Your task to perform on an android device: open wifi settings Image 0: 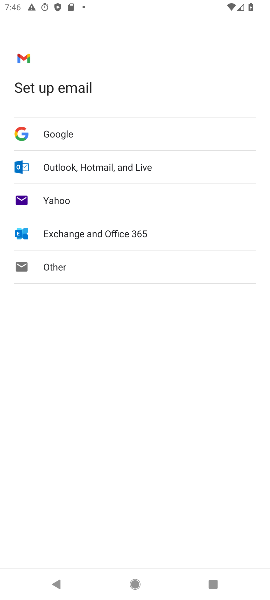
Step 0: drag from (136, 506) to (205, 237)
Your task to perform on an android device: open wifi settings Image 1: 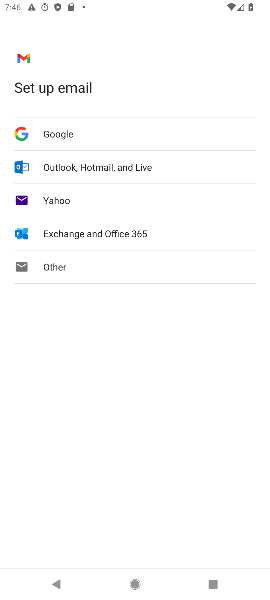
Step 1: drag from (162, 476) to (161, 325)
Your task to perform on an android device: open wifi settings Image 2: 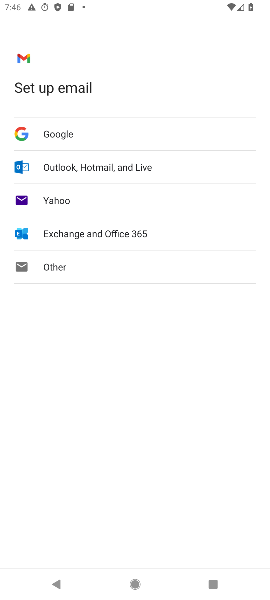
Step 2: drag from (104, 476) to (130, 198)
Your task to perform on an android device: open wifi settings Image 3: 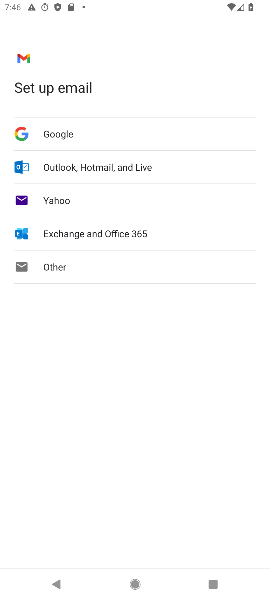
Step 3: drag from (128, 466) to (122, 84)
Your task to perform on an android device: open wifi settings Image 4: 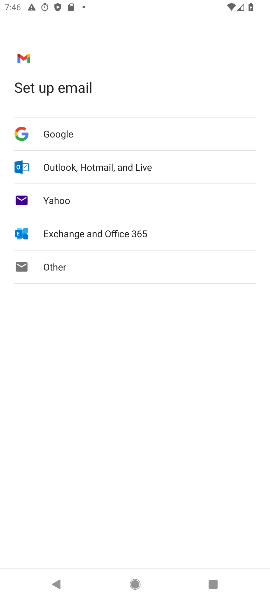
Step 4: press home button
Your task to perform on an android device: open wifi settings Image 5: 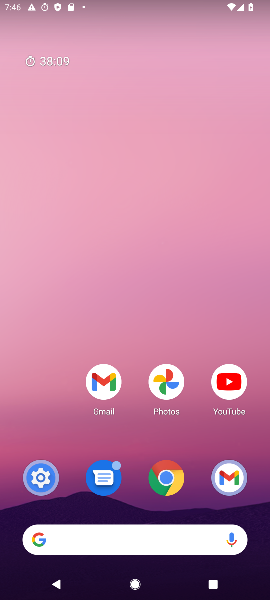
Step 5: click (34, 470)
Your task to perform on an android device: open wifi settings Image 6: 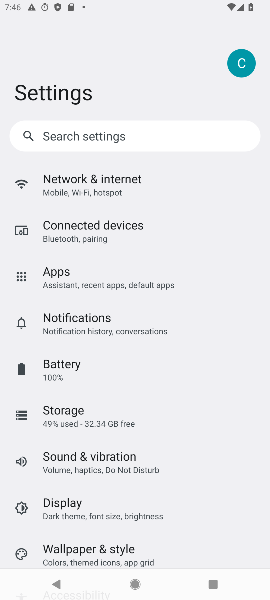
Step 6: click (156, 186)
Your task to perform on an android device: open wifi settings Image 7: 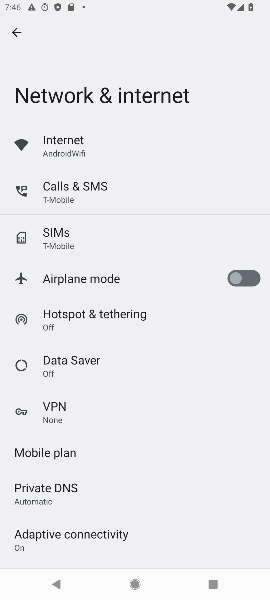
Step 7: click (75, 151)
Your task to perform on an android device: open wifi settings Image 8: 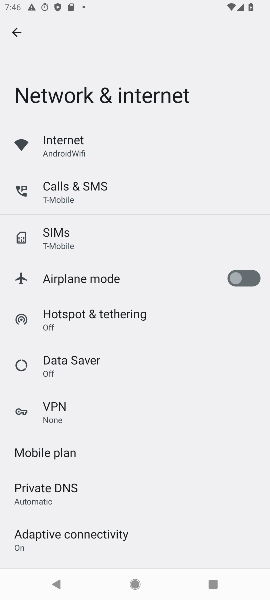
Step 8: click (75, 151)
Your task to perform on an android device: open wifi settings Image 9: 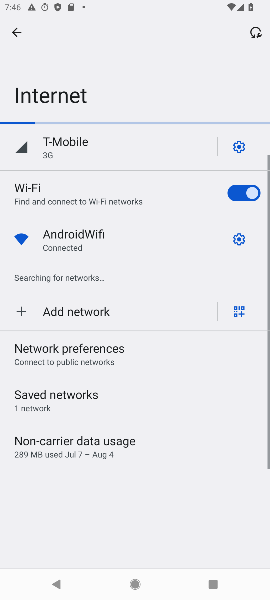
Step 9: click (238, 239)
Your task to perform on an android device: open wifi settings Image 10: 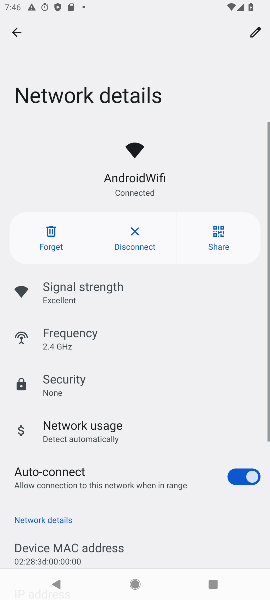
Step 10: task complete